Your task to perform on an android device: Go to CNN.com Image 0: 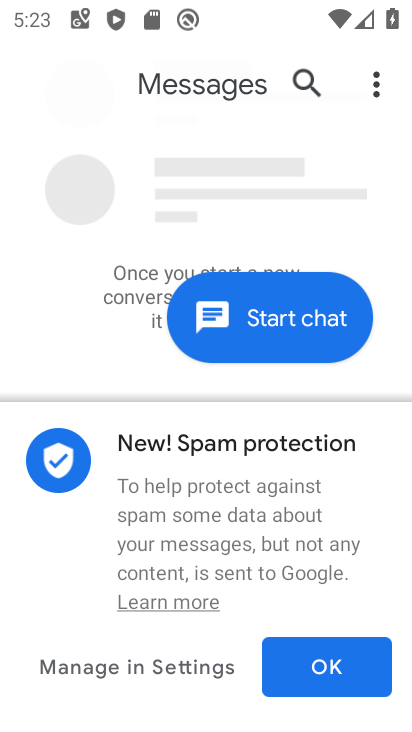
Step 0: press home button
Your task to perform on an android device: Go to CNN.com Image 1: 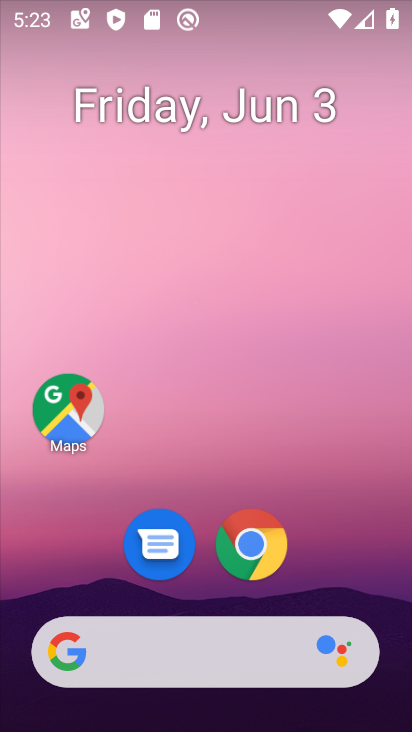
Step 1: click (256, 545)
Your task to perform on an android device: Go to CNN.com Image 2: 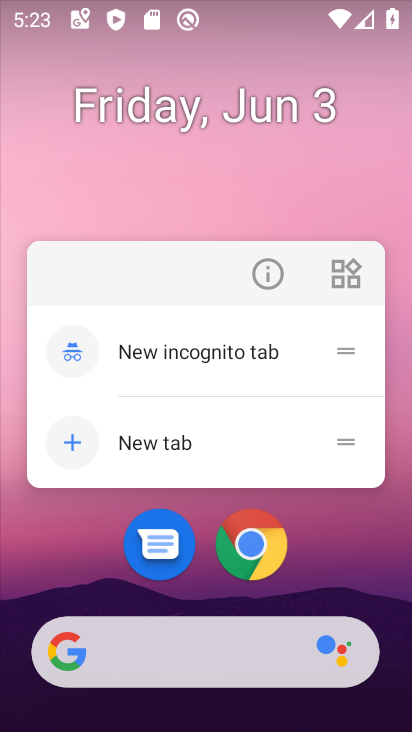
Step 2: click (256, 542)
Your task to perform on an android device: Go to CNN.com Image 3: 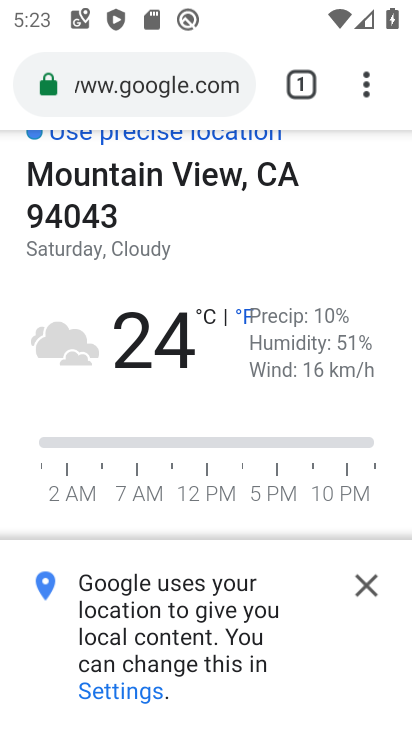
Step 3: click (152, 77)
Your task to perform on an android device: Go to CNN.com Image 4: 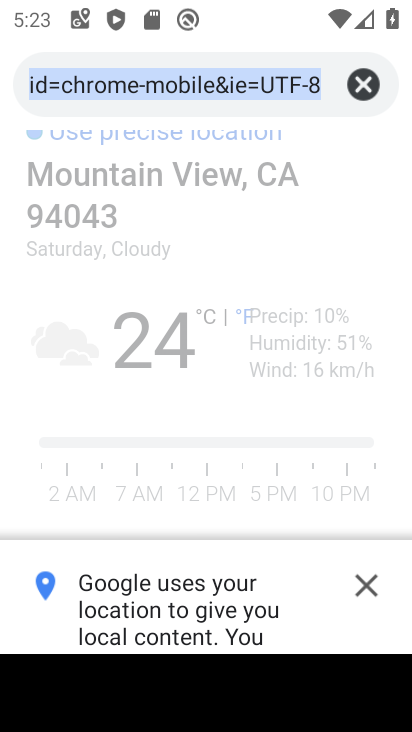
Step 4: click (362, 88)
Your task to perform on an android device: Go to CNN.com Image 5: 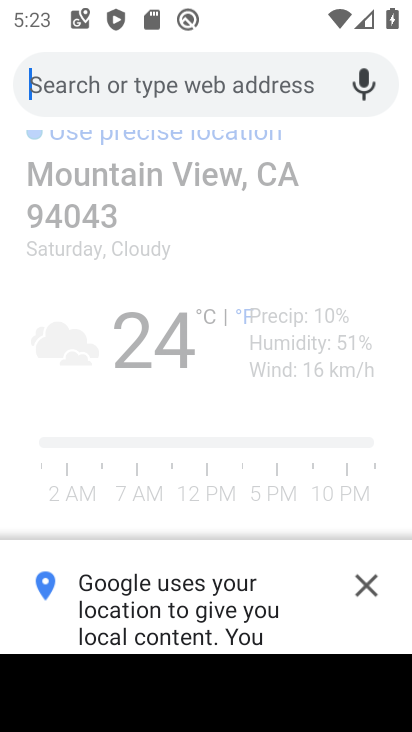
Step 5: type " CNN.com"
Your task to perform on an android device: Go to CNN.com Image 6: 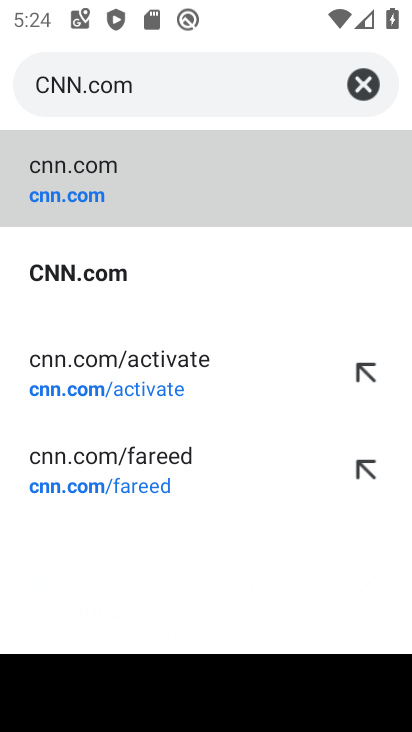
Step 6: click (53, 196)
Your task to perform on an android device: Go to CNN.com Image 7: 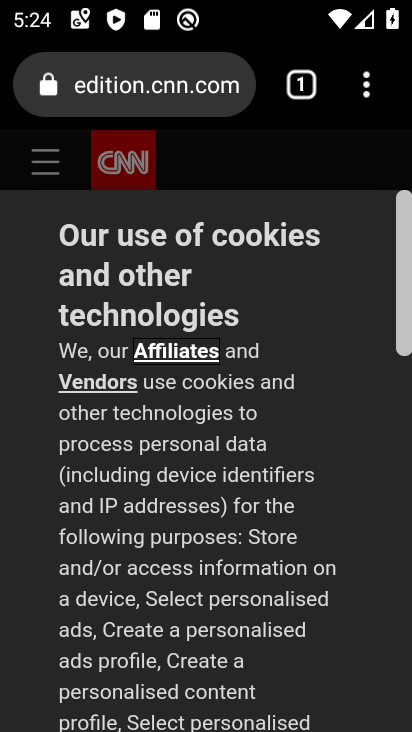
Step 7: task complete